Your task to perform on an android device: Open calendar and show me the second week of next month Image 0: 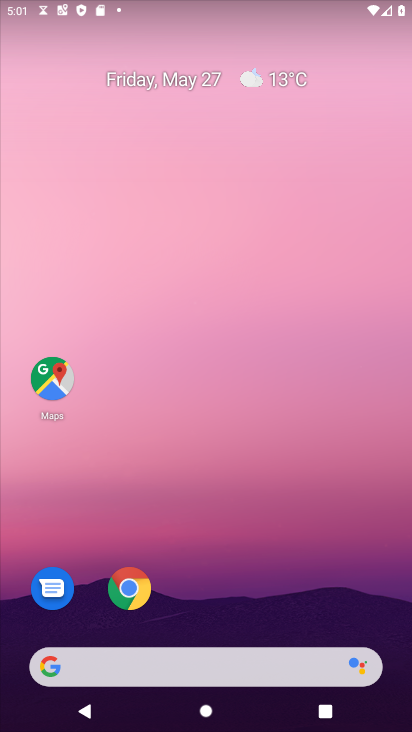
Step 0: drag from (276, 424) to (323, 62)
Your task to perform on an android device: Open calendar and show me the second week of next month Image 1: 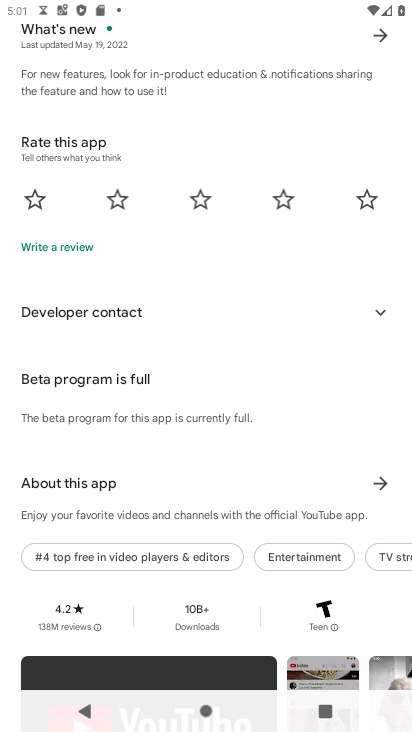
Step 1: press back button
Your task to perform on an android device: Open calendar and show me the second week of next month Image 2: 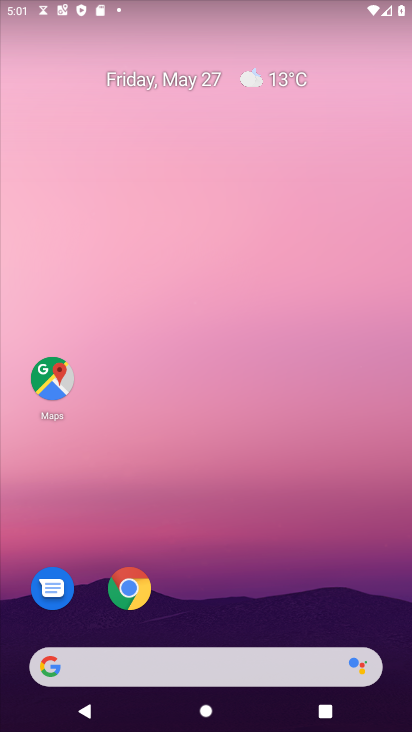
Step 2: drag from (216, 614) to (261, 100)
Your task to perform on an android device: Open calendar and show me the second week of next month Image 3: 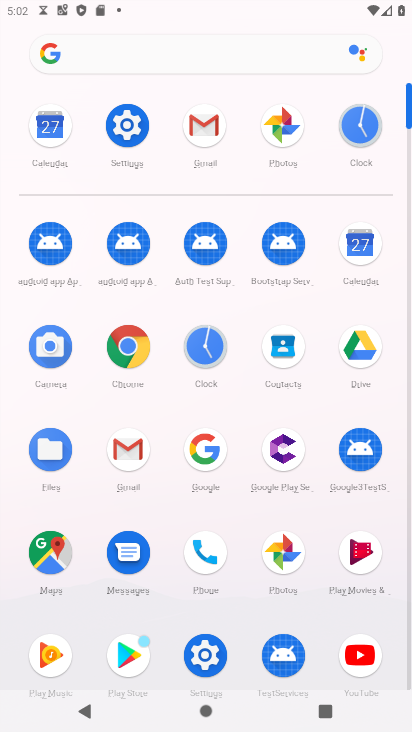
Step 3: click (355, 243)
Your task to perform on an android device: Open calendar and show me the second week of next month Image 4: 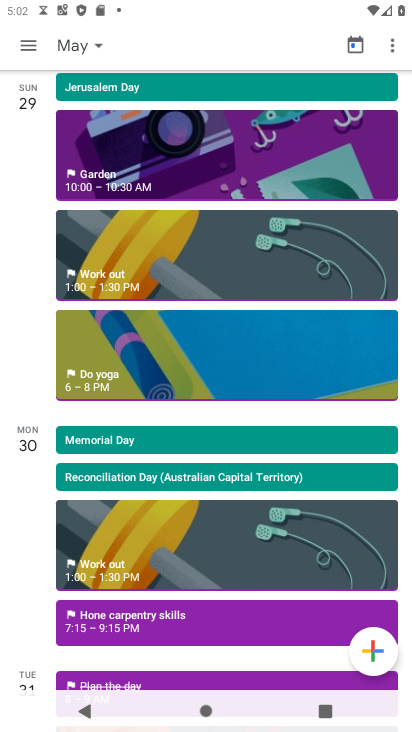
Step 4: click (88, 42)
Your task to perform on an android device: Open calendar and show me the second week of next month Image 5: 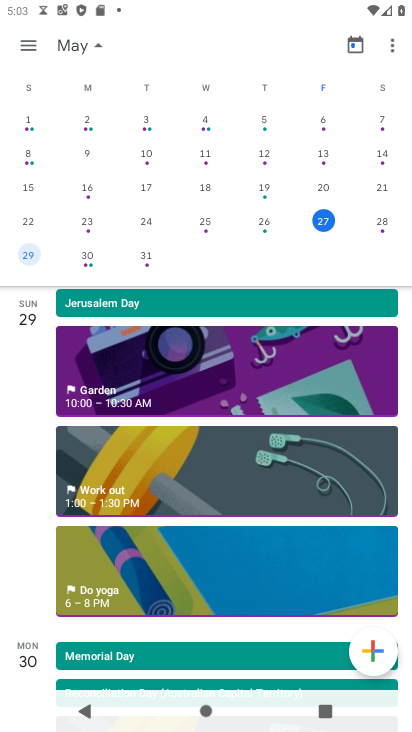
Step 5: drag from (386, 180) to (45, 137)
Your task to perform on an android device: Open calendar and show me the second week of next month Image 6: 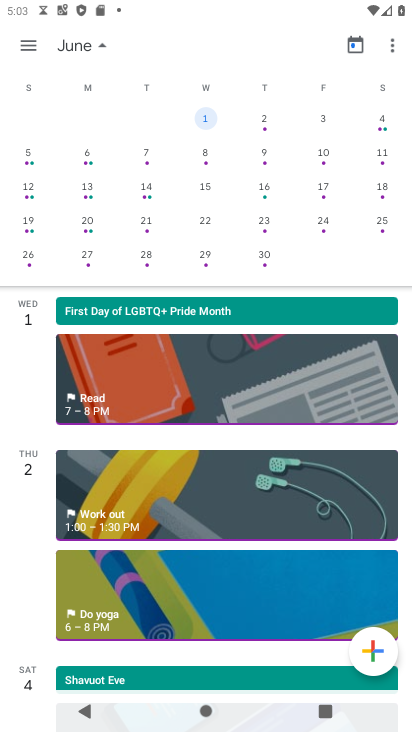
Step 6: click (90, 154)
Your task to perform on an android device: Open calendar and show me the second week of next month Image 7: 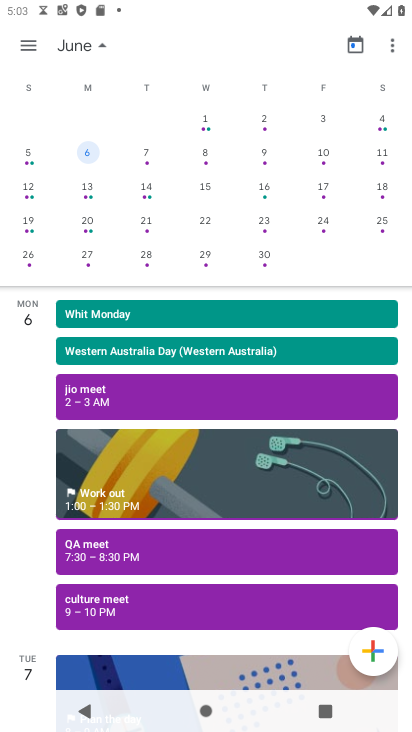
Step 7: task complete